Your task to perform on an android device: set the timer Image 0: 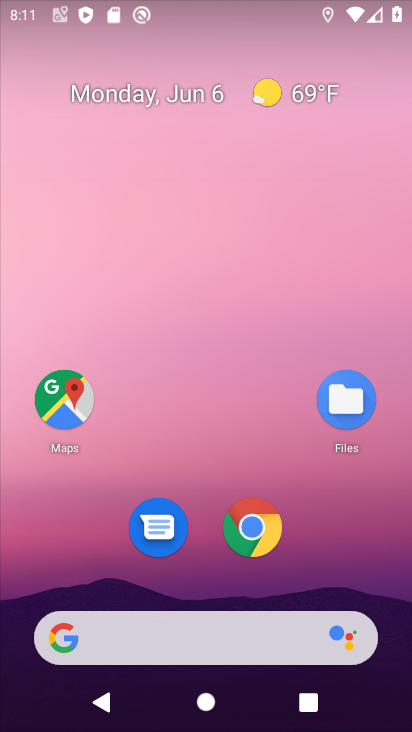
Step 0: drag from (218, 584) to (239, 13)
Your task to perform on an android device: set the timer Image 1: 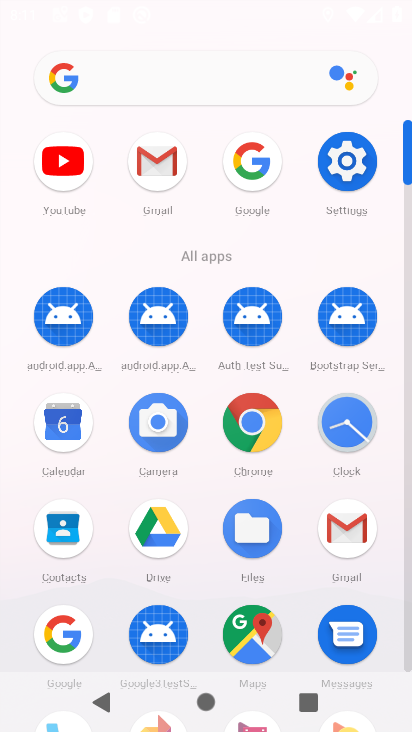
Step 1: click (353, 424)
Your task to perform on an android device: set the timer Image 2: 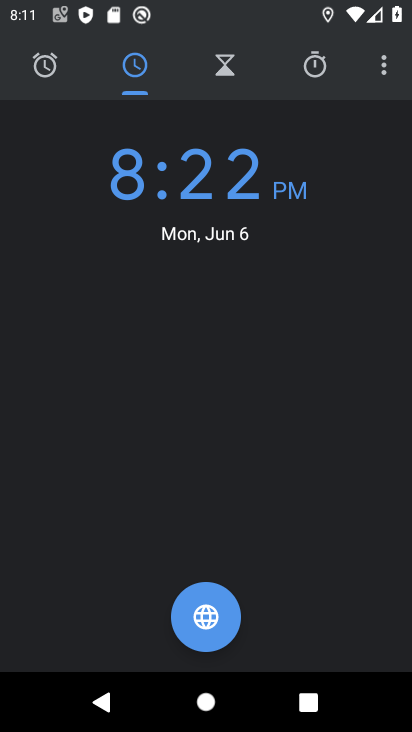
Step 2: click (222, 73)
Your task to perform on an android device: set the timer Image 3: 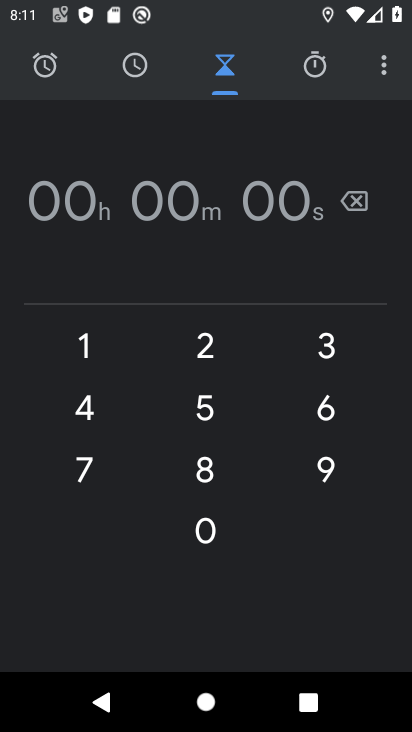
Step 3: click (213, 342)
Your task to perform on an android device: set the timer Image 4: 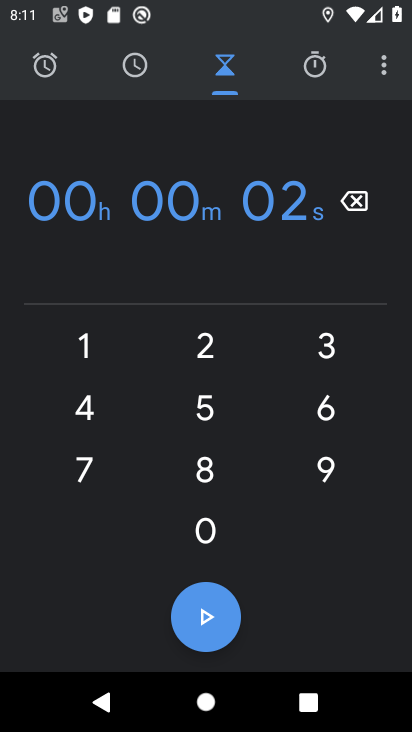
Step 4: click (213, 341)
Your task to perform on an android device: set the timer Image 5: 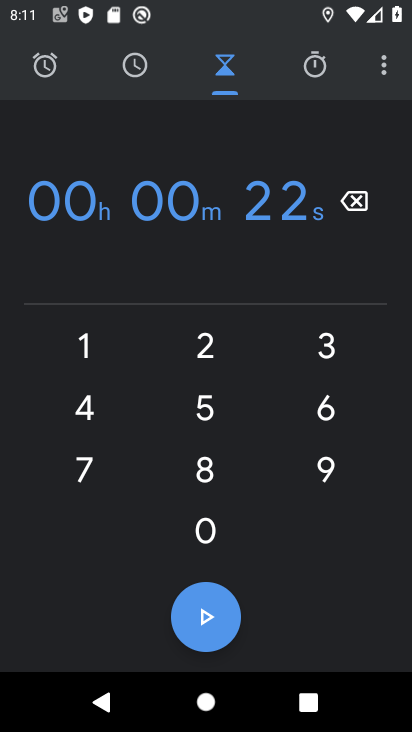
Step 5: task complete